Your task to perform on an android device: Open the phone app and click the voicemail tab. Image 0: 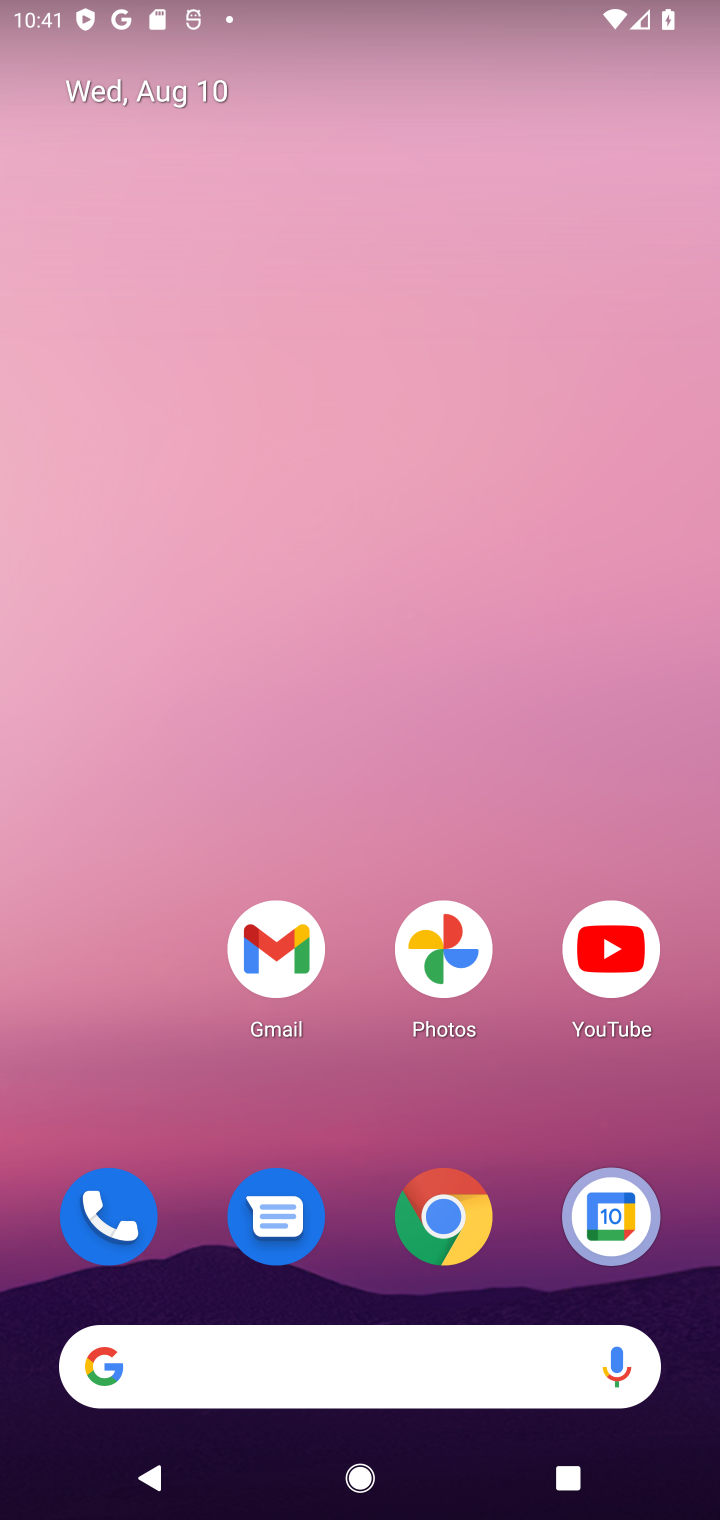
Step 0: click (76, 1227)
Your task to perform on an android device: Open the phone app and click the voicemail tab. Image 1: 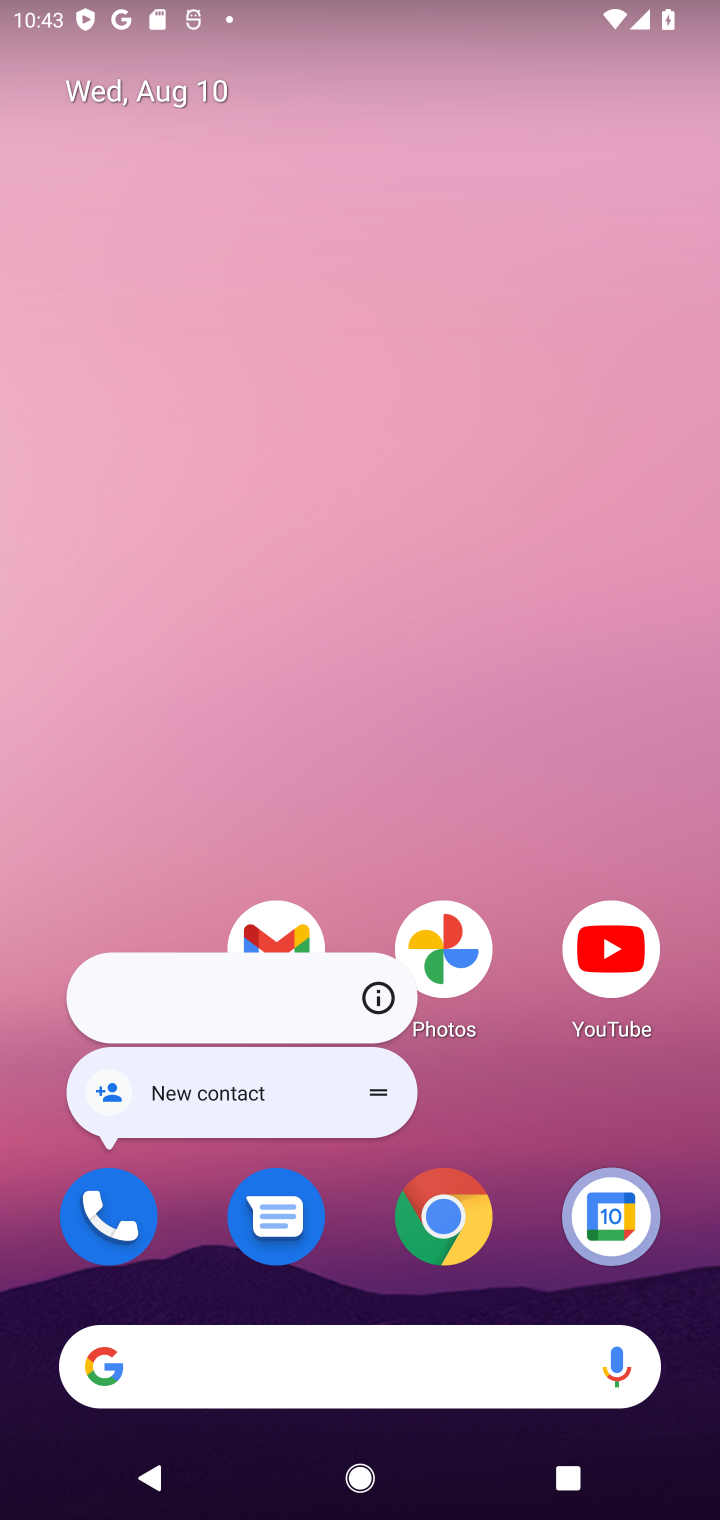
Step 1: click (122, 1224)
Your task to perform on an android device: Open the phone app and click the voicemail tab. Image 2: 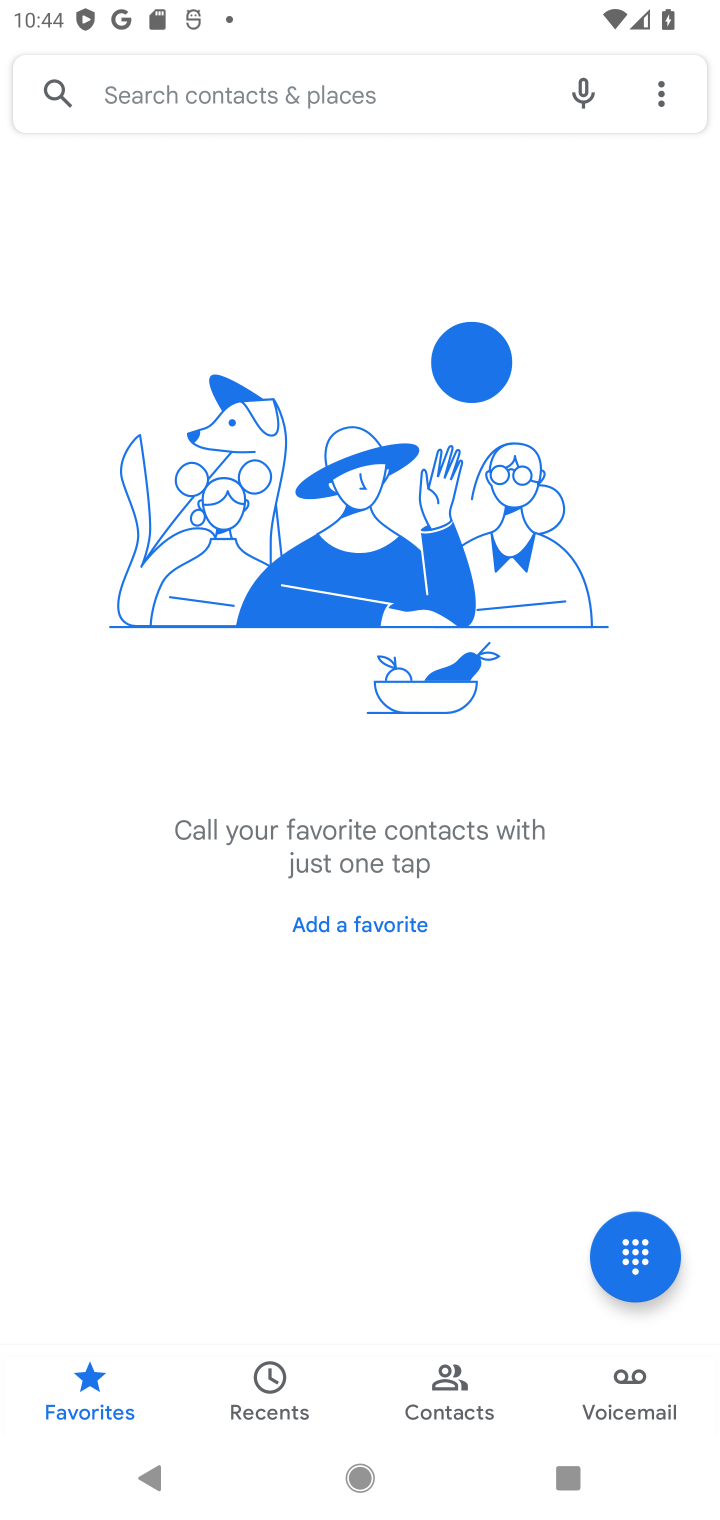
Step 2: click (603, 1376)
Your task to perform on an android device: Open the phone app and click the voicemail tab. Image 3: 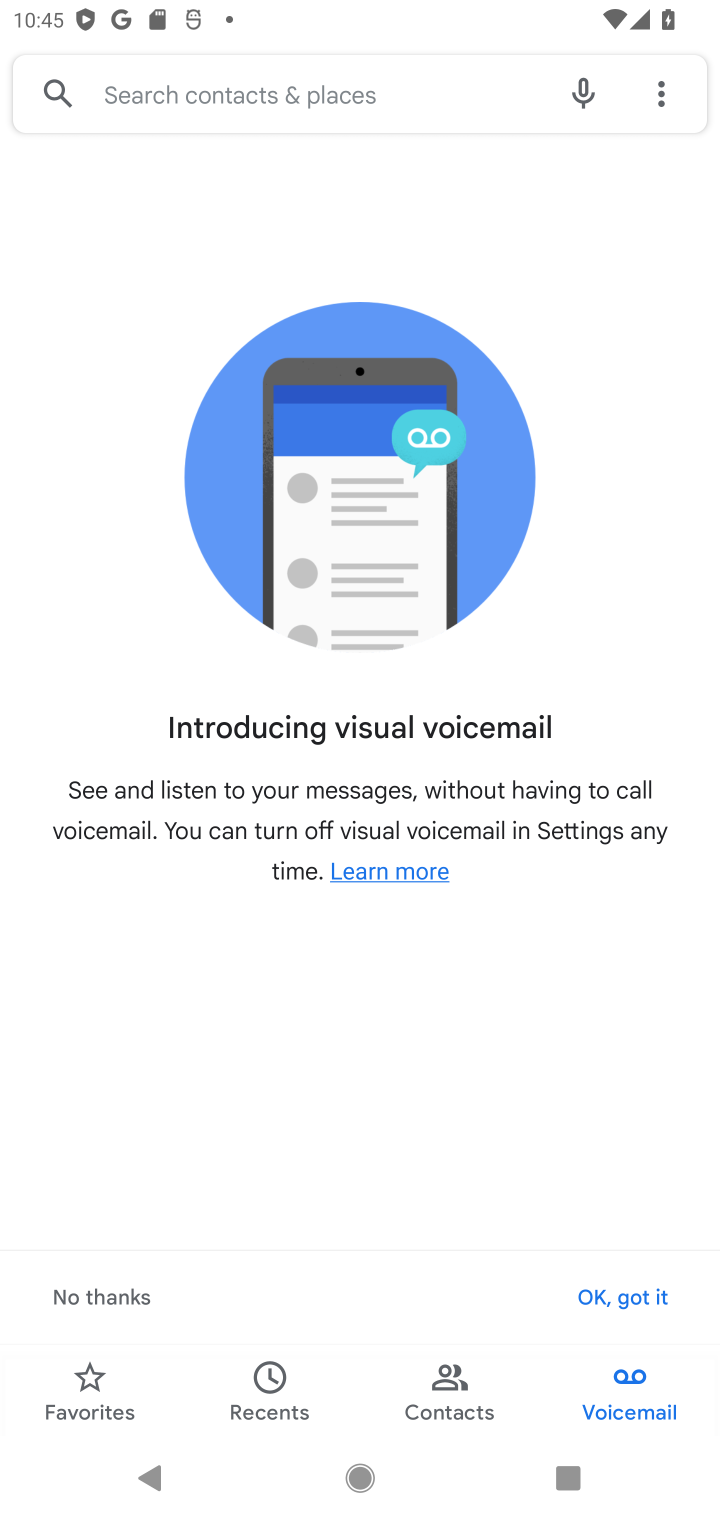
Step 3: task complete